Your task to perform on an android device: Go to eBay Image 0: 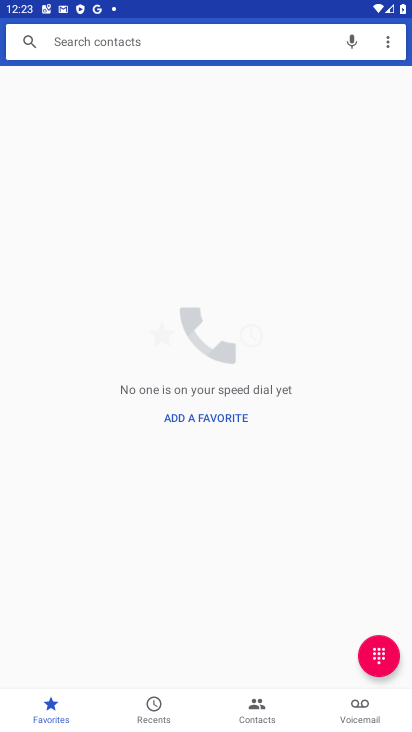
Step 0: press home button
Your task to perform on an android device: Go to eBay Image 1: 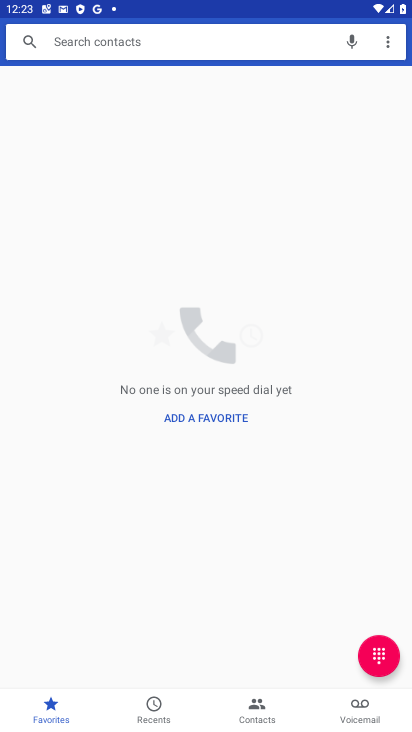
Step 1: press home button
Your task to perform on an android device: Go to eBay Image 2: 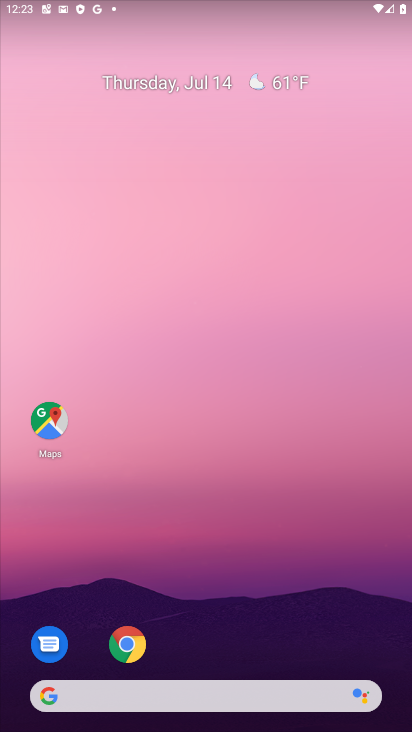
Step 2: click (127, 634)
Your task to perform on an android device: Go to eBay Image 3: 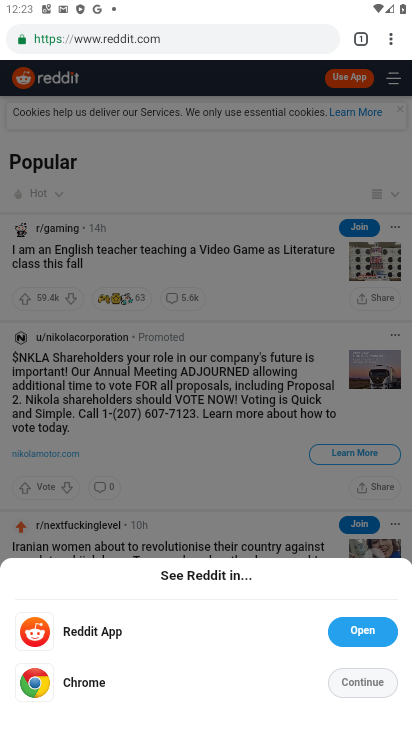
Step 3: click (167, 29)
Your task to perform on an android device: Go to eBay Image 4: 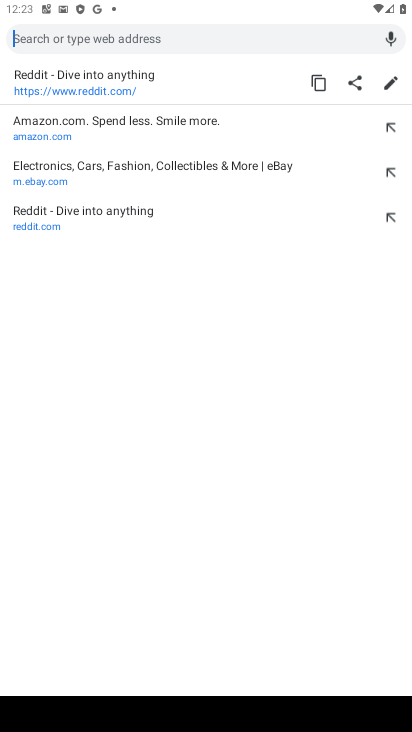
Step 4: type "ebay"
Your task to perform on an android device: Go to eBay Image 5: 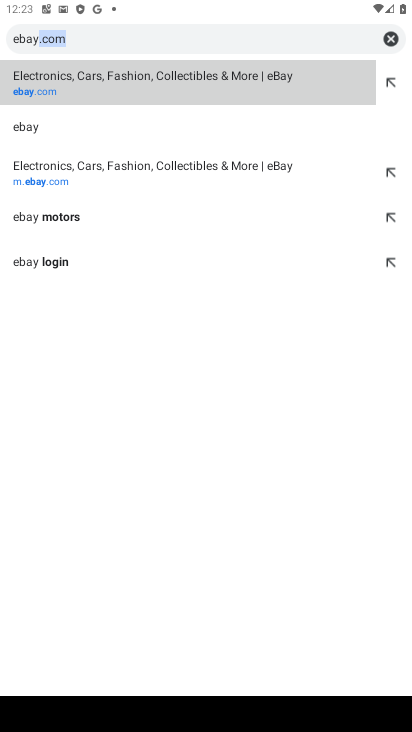
Step 5: click (85, 89)
Your task to perform on an android device: Go to eBay Image 6: 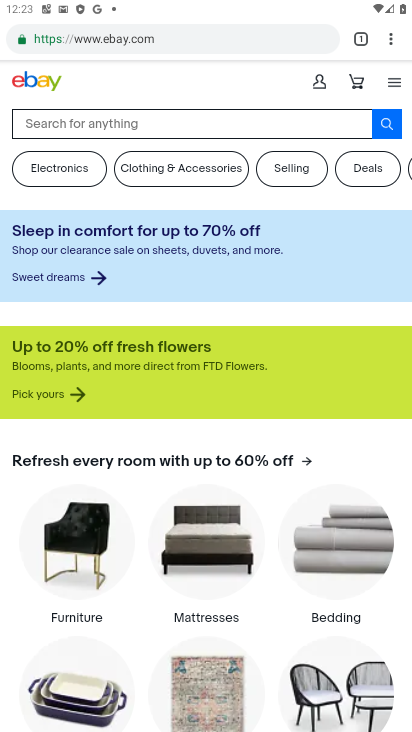
Step 6: task complete